Your task to perform on an android device: turn off priority inbox in the gmail app Image 0: 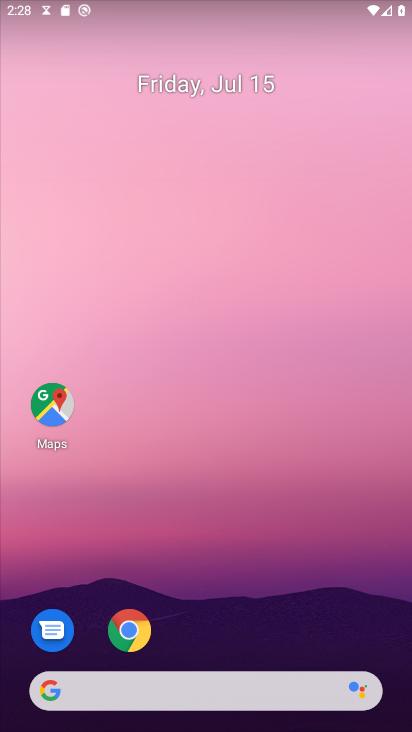
Step 0: drag from (198, 663) to (261, 28)
Your task to perform on an android device: turn off priority inbox in the gmail app Image 1: 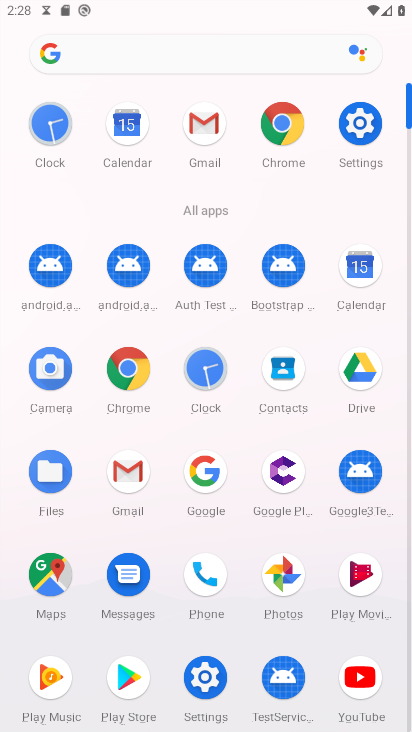
Step 1: click (195, 117)
Your task to perform on an android device: turn off priority inbox in the gmail app Image 2: 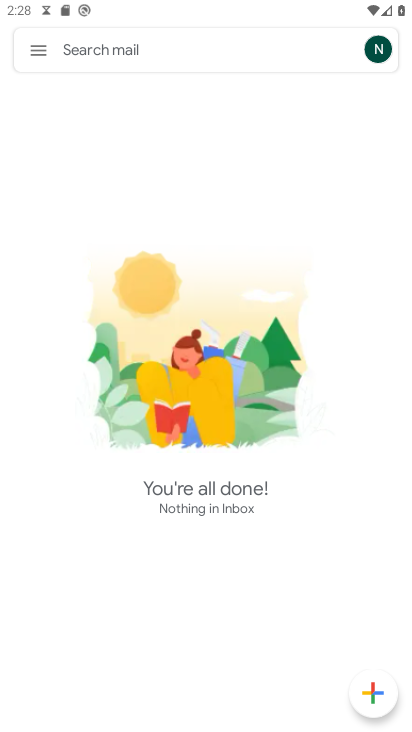
Step 2: click (33, 48)
Your task to perform on an android device: turn off priority inbox in the gmail app Image 3: 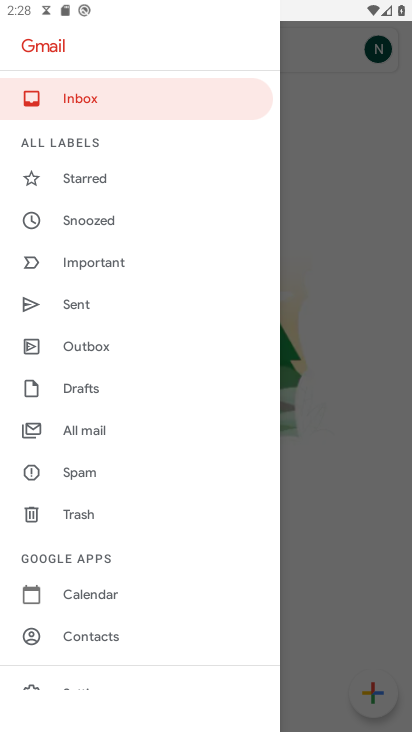
Step 3: drag from (86, 621) to (55, 166)
Your task to perform on an android device: turn off priority inbox in the gmail app Image 4: 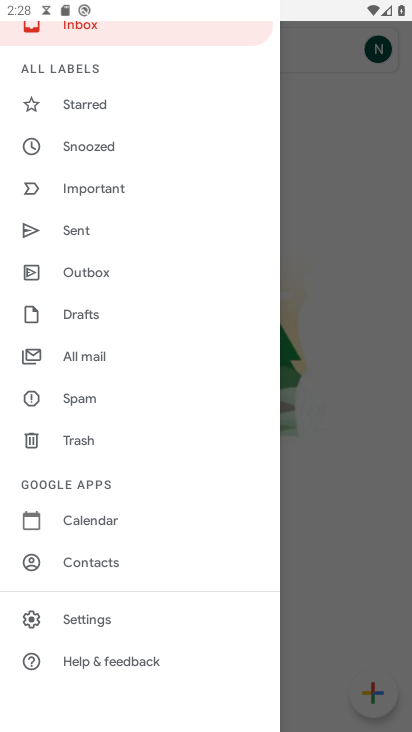
Step 4: click (72, 612)
Your task to perform on an android device: turn off priority inbox in the gmail app Image 5: 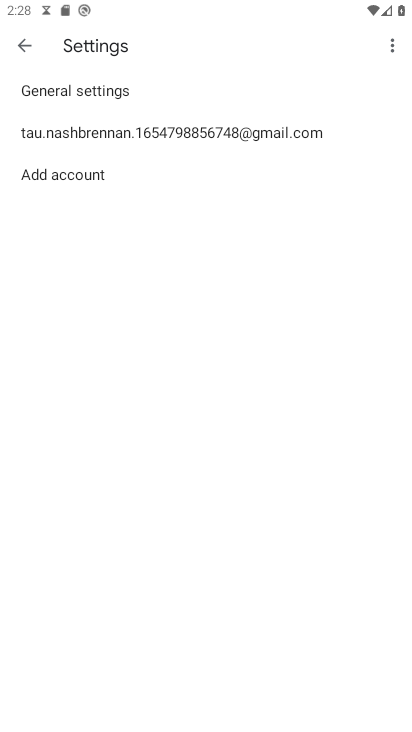
Step 5: click (65, 135)
Your task to perform on an android device: turn off priority inbox in the gmail app Image 6: 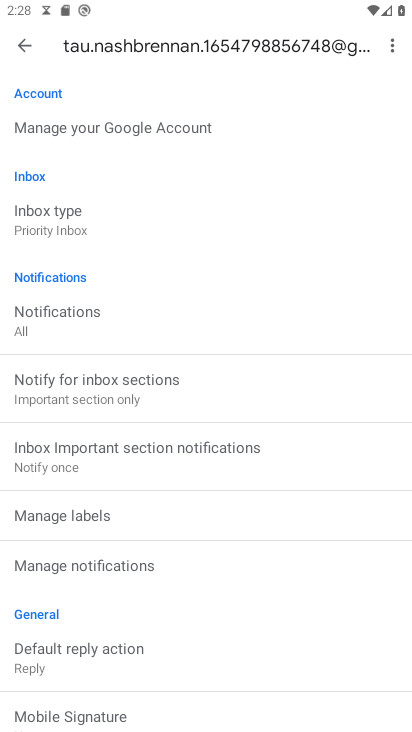
Step 6: click (54, 223)
Your task to perform on an android device: turn off priority inbox in the gmail app Image 7: 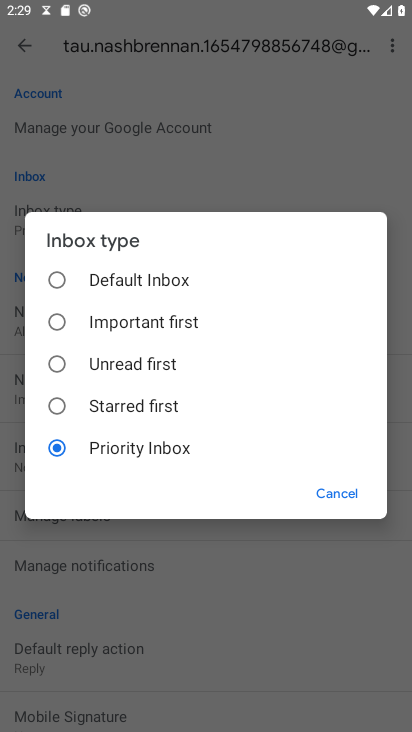
Step 7: click (84, 273)
Your task to perform on an android device: turn off priority inbox in the gmail app Image 8: 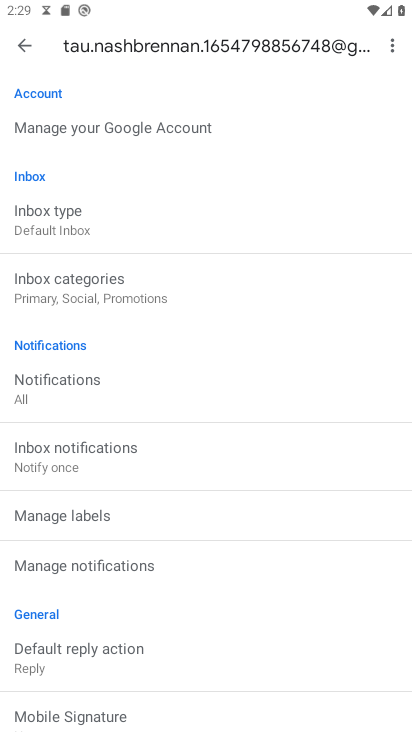
Step 8: task complete